Your task to perform on an android device: Google the capital of Paraguay Image 0: 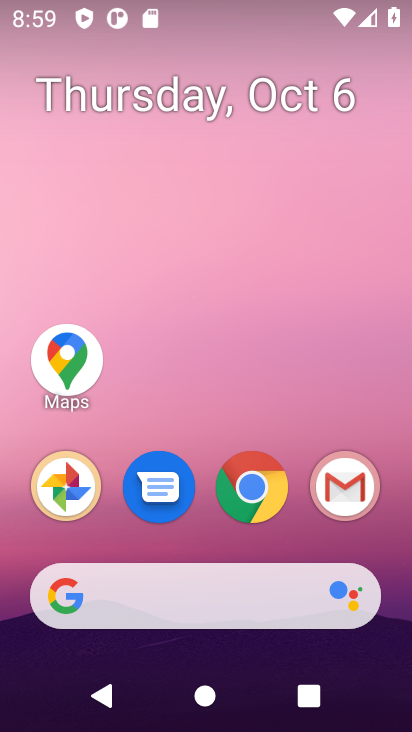
Step 0: drag from (131, 400) to (193, 76)
Your task to perform on an android device: Google the capital of Paraguay Image 1: 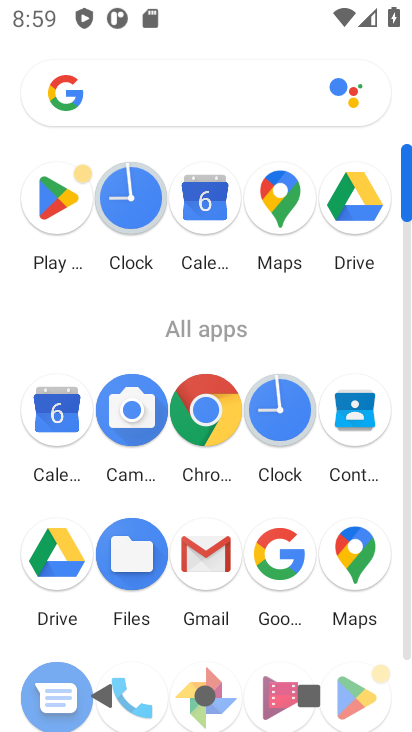
Step 1: click (205, 399)
Your task to perform on an android device: Google the capital of Paraguay Image 2: 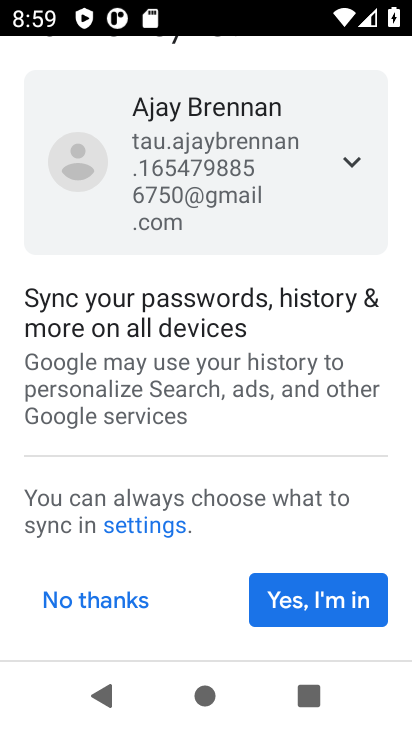
Step 2: click (100, 602)
Your task to perform on an android device: Google the capital of Paraguay Image 3: 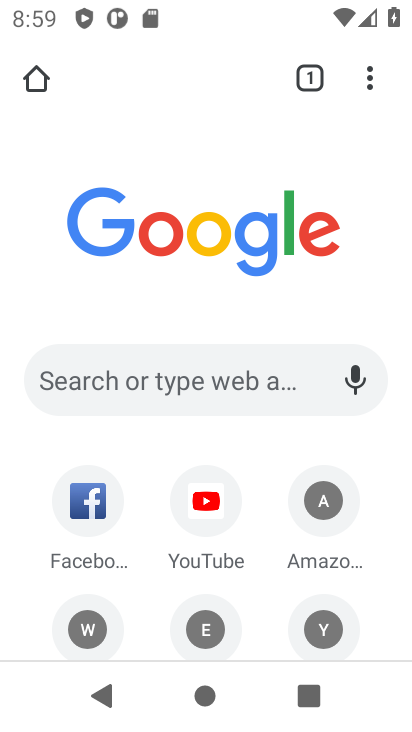
Step 3: click (190, 75)
Your task to perform on an android device: Google the capital of Paraguay Image 4: 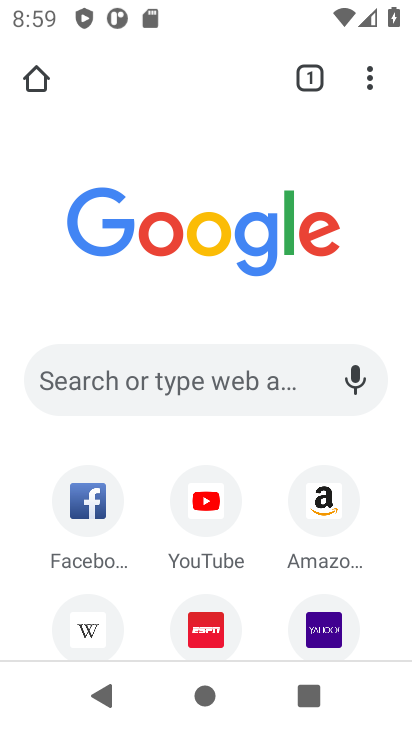
Step 4: drag from (173, 378) to (206, 393)
Your task to perform on an android device: Google the capital of Paraguay Image 5: 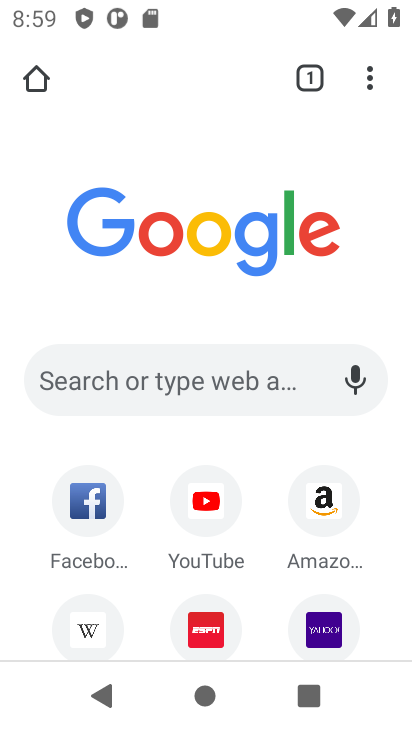
Step 5: type "capital of Paraguay"
Your task to perform on an android device: Google the capital of Paraguay Image 6: 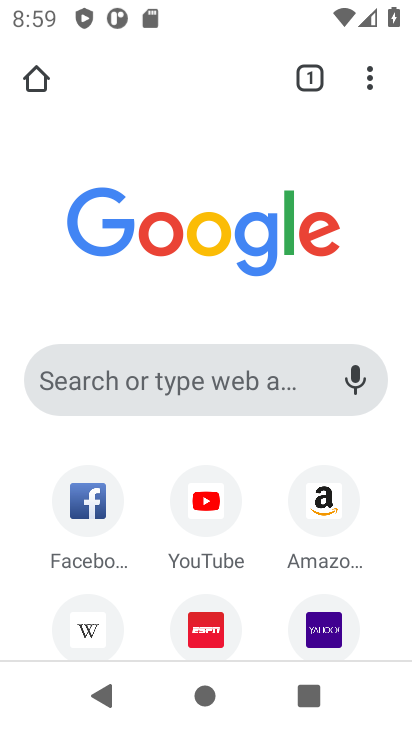
Step 6: press enter
Your task to perform on an android device: Google the capital of Paraguay Image 7: 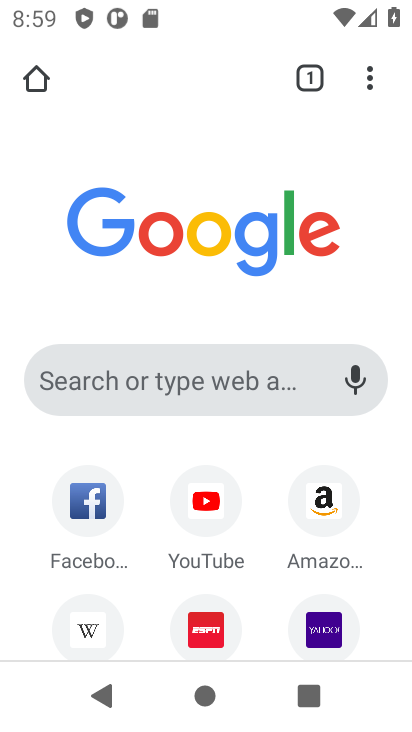
Step 7: click (206, 374)
Your task to perform on an android device: Google the capital of Paraguay Image 8: 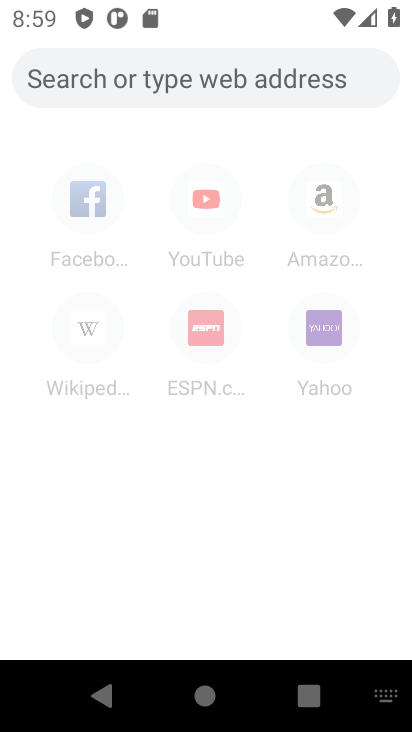
Step 8: type "capital of Paraguay"
Your task to perform on an android device: Google the capital of Paraguay Image 9: 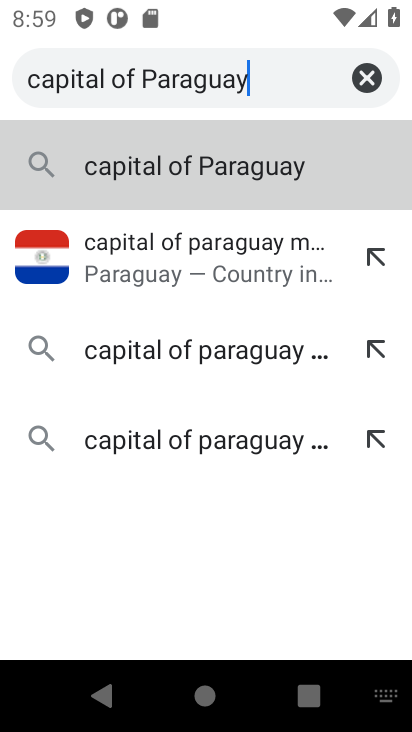
Step 9: press enter
Your task to perform on an android device: Google the capital of Paraguay Image 10: 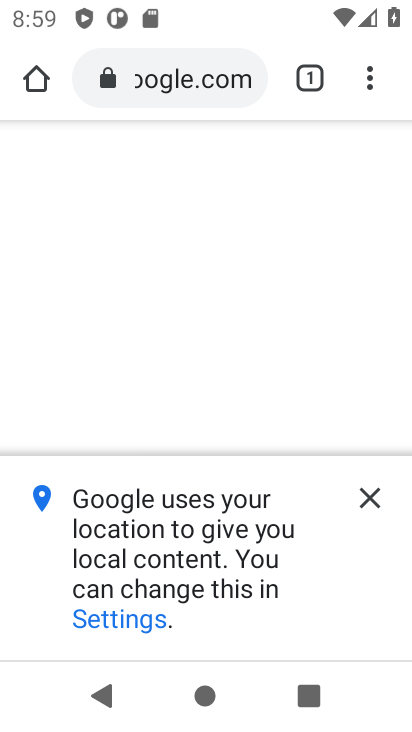
Step 10: click (375, 503)
Your task to perform on an android device: Google the capital of Paraguay Image 11: 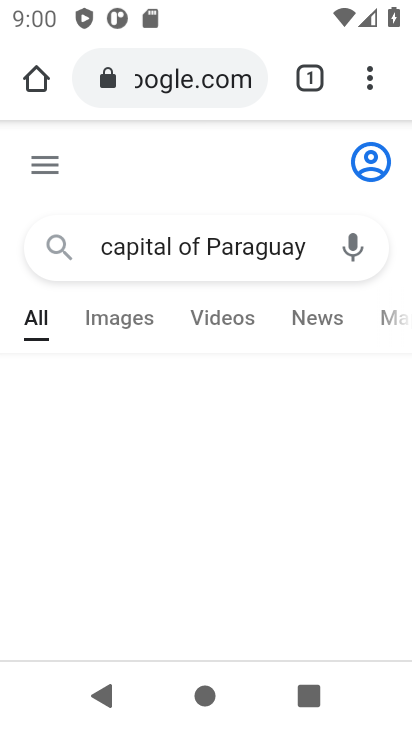
Step 11: click (365, 496)
Your task to perform on an android device: Google the capital of Paraguay Image 12: 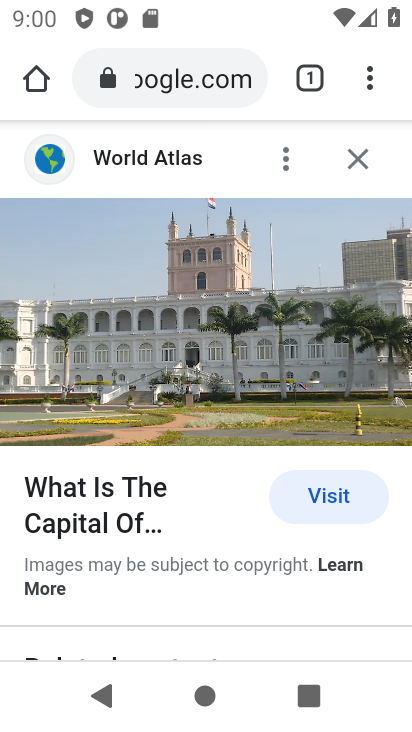
Step 12: task complete